Your task to perform on an android device: Open Maps and search for coffee Image 0: 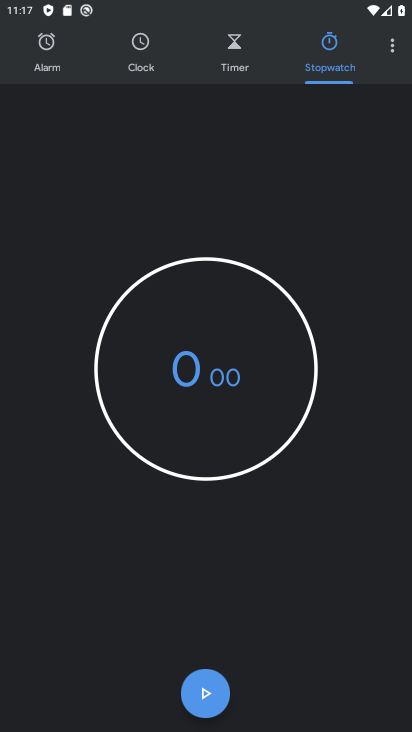
Step 0: press back button
Your task to perform on an android device: Open Maps and search for coffee Image 1: 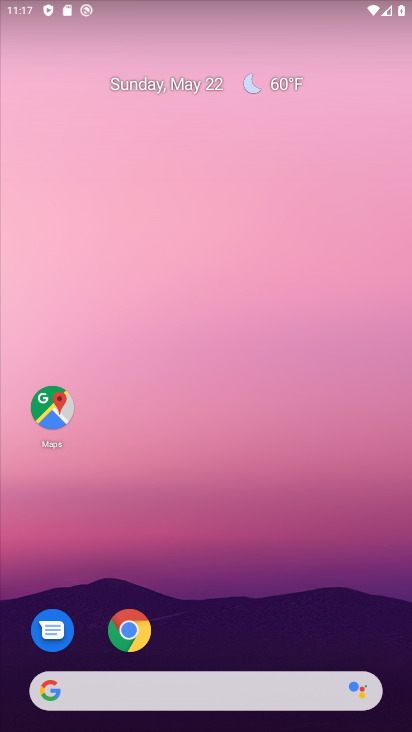
Step 1: click (52, 409)
Your task to perform on an android device: Open Maps and search for coffee Image 2: 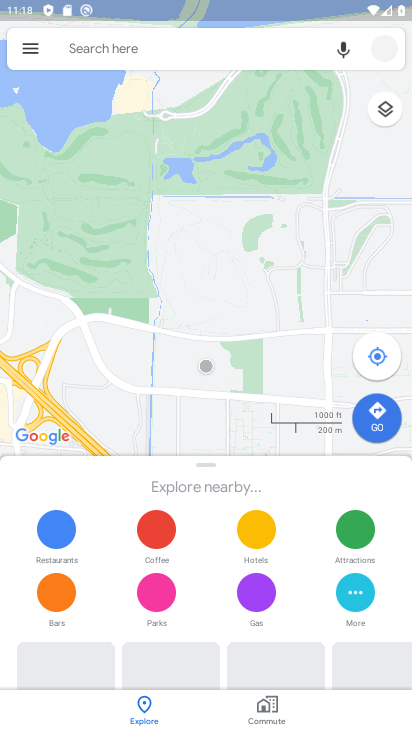
Step 2: click (162, 55)
Your task to perform on an android device: Open Maps and search for coffee Image 3: 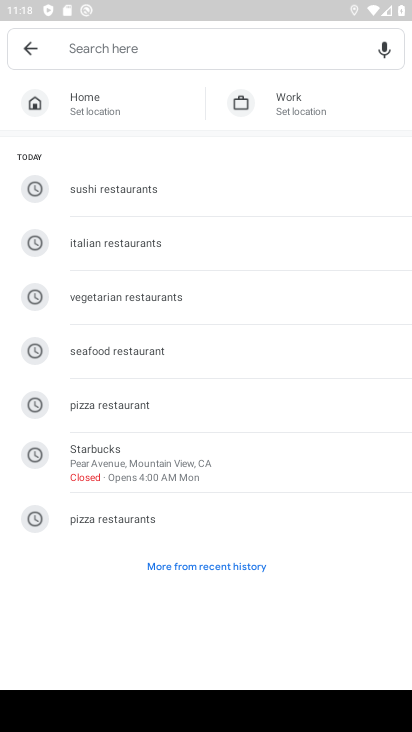
Step 3: type "coffee"
Your task to perform on an android device: Open Maps and search for coffee Image 4: 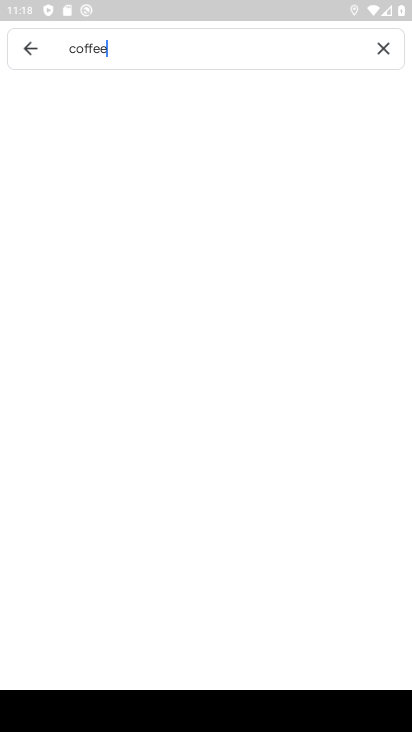
Step 4: type ""
Your task to perform on an android device: Open Maps and search for coffee Image 5: 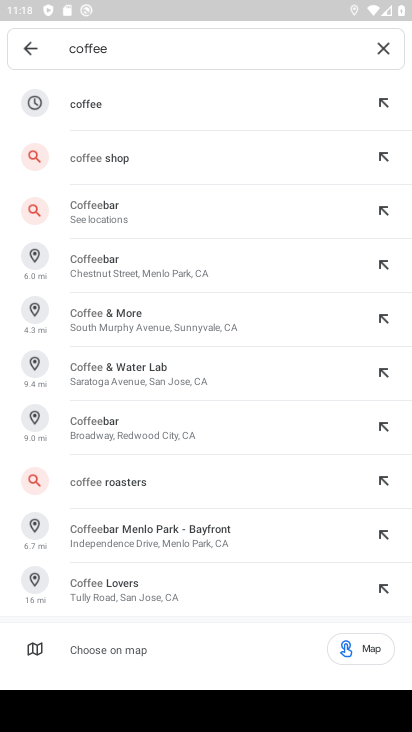
Step 5: click (83, 100)
Your task to perform on an android device: Open Maps and search for coffee Image 6: 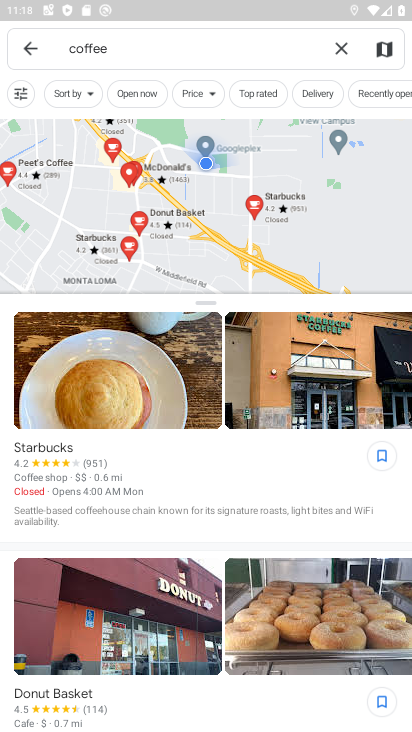
Step 6: task complete